Your task to perform on an android device: set the stopwatch Image 0: 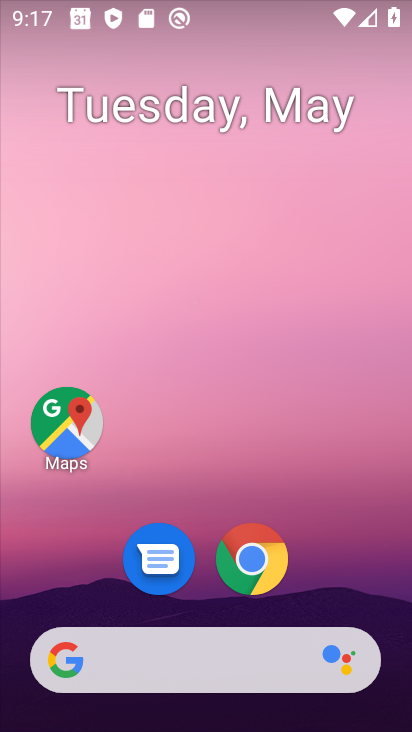
Step 0: drag from (312, 661) to (288, 116)
Your task to perform on an android device: set the stopwatch Image 1: 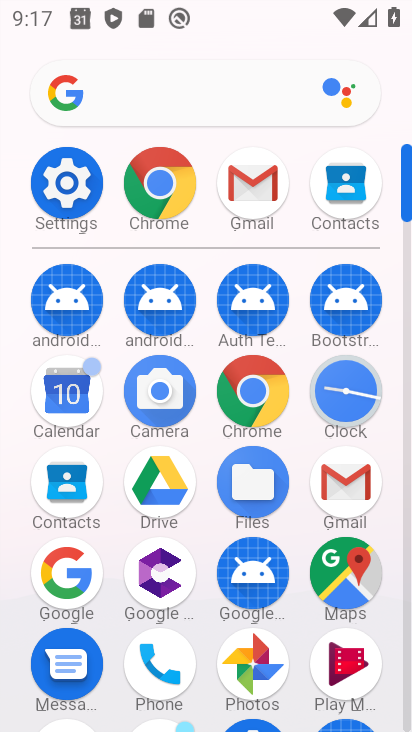
Step 1: click (346, 388)
Your task to perform on an android device: set the stopwatch Image 2: 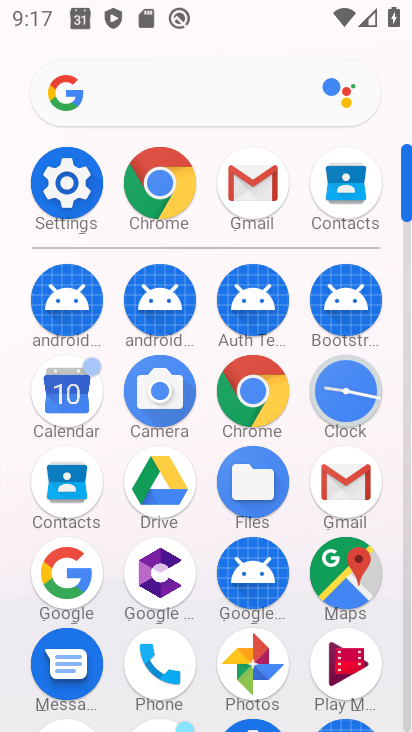
Step 2: click (346, 388)
Your task to perform on an android device: set the stopwatch Image 3: 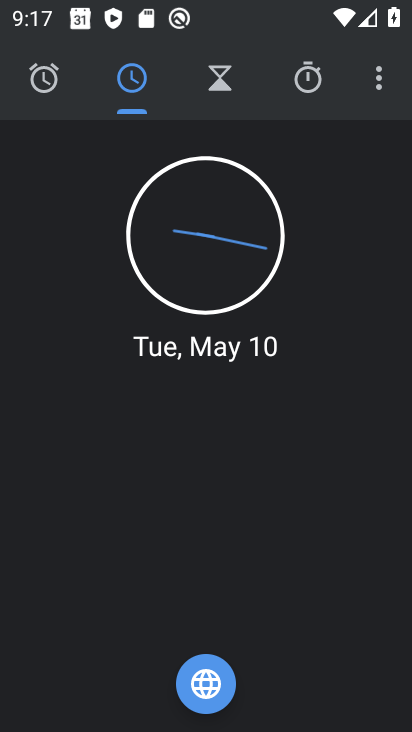
Step 3: click (310, 85)
Your task to perform on an android device: set the stopwatch Image 4: 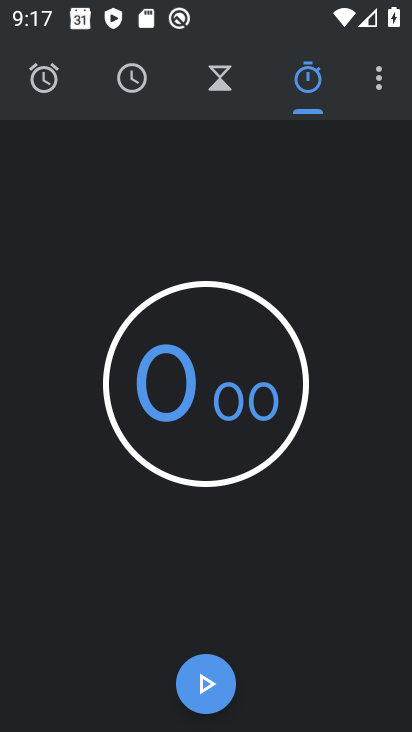
Step 4: click (205, 683)
Your task to perform on an android device: set the stopwatch Image 5: 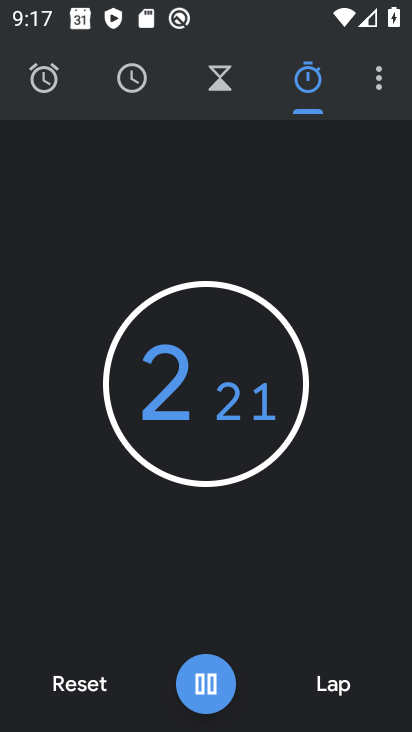
Step 5: click (204, 672)
Your task to perform on an android device: set the stopwatch Image 6: 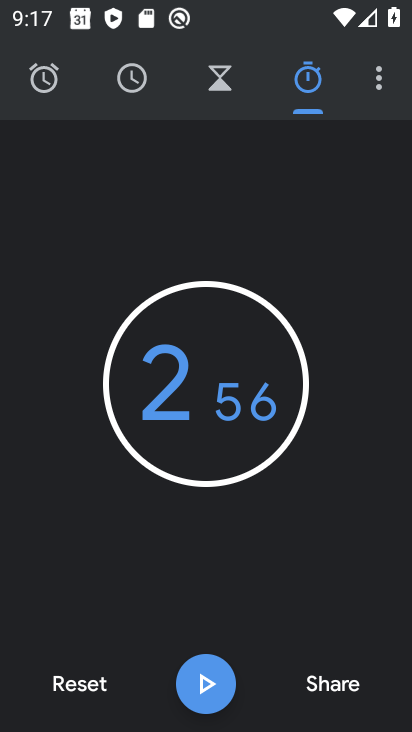
Step 6: click (204, 671)
Your task to perform on an android device: set the stopwatch Image 7: 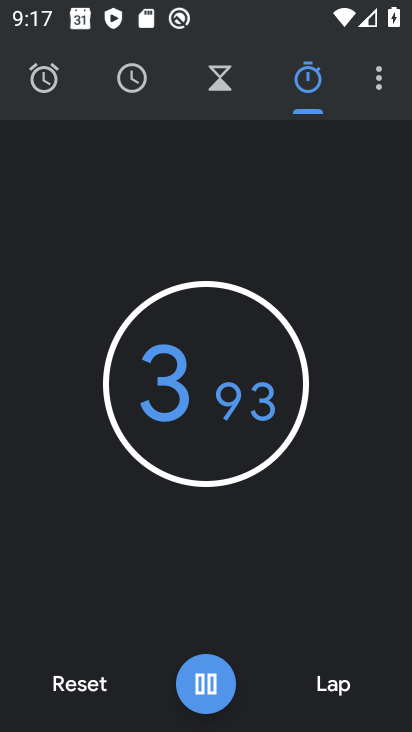
Step 7: task complete